Your task to perform on an android device: Open Google Maps Image 0: 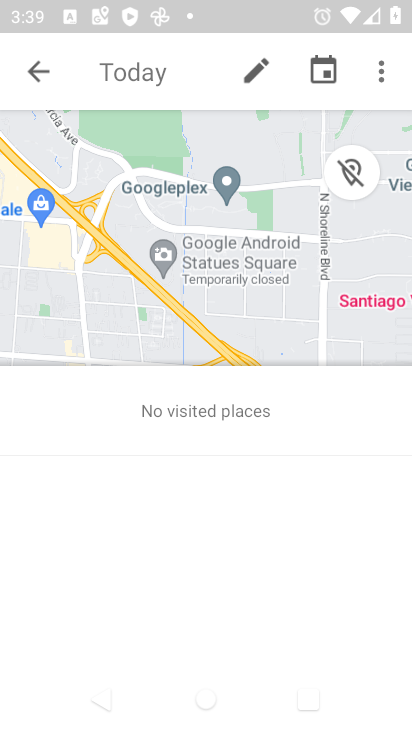
Step 0: press home button
Your task to perform on an android device: Open Google Maps Image 1: 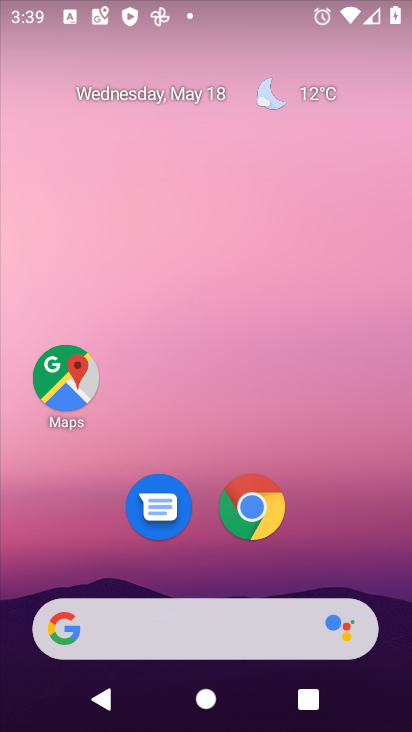
Step 1: click (61, 376)
Your task to perform on an android device: Open Google Maps Image 2: 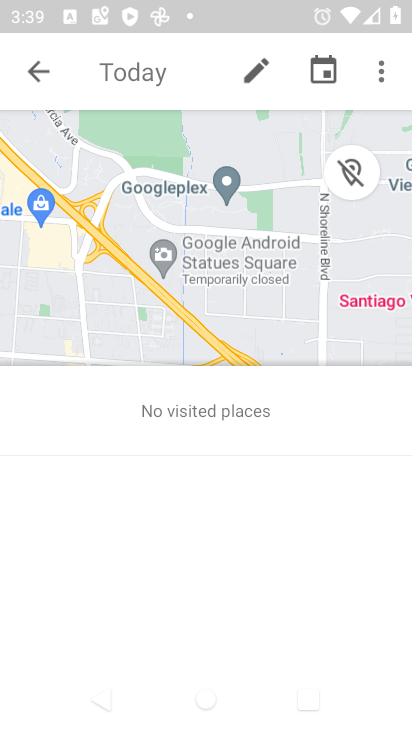
Step 2: task complete